Your task to perform on an android device: Open Google Image 0: 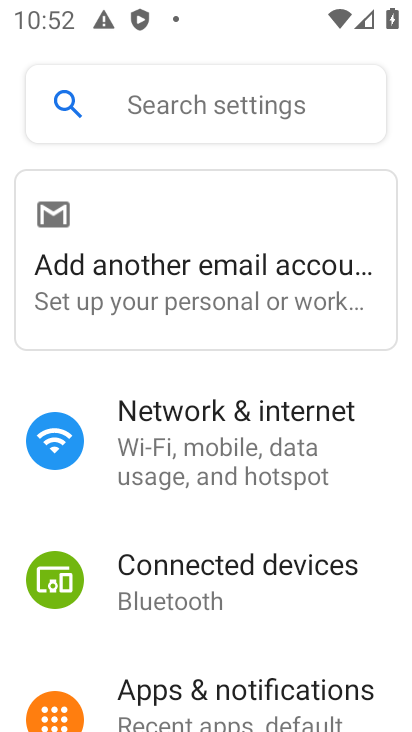
Step 0: press home button
Your task to perform on an android device: Open Google Image 1: 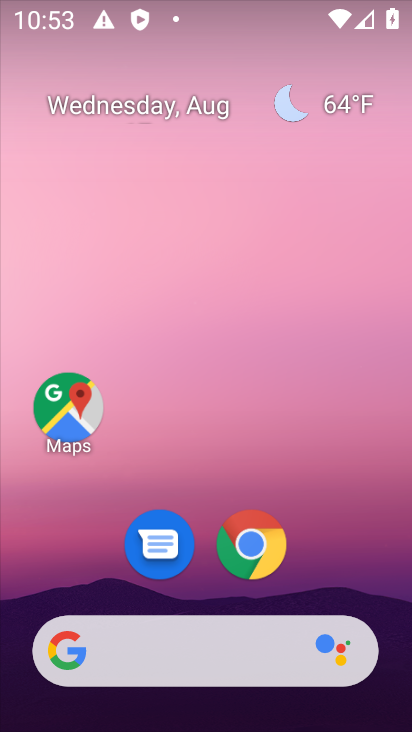
Step 1: task complete